Your task to perform on an android device: View the shopping cart on target. Add "razer huntsman" to the cart on target, then select checkout. Image 0: 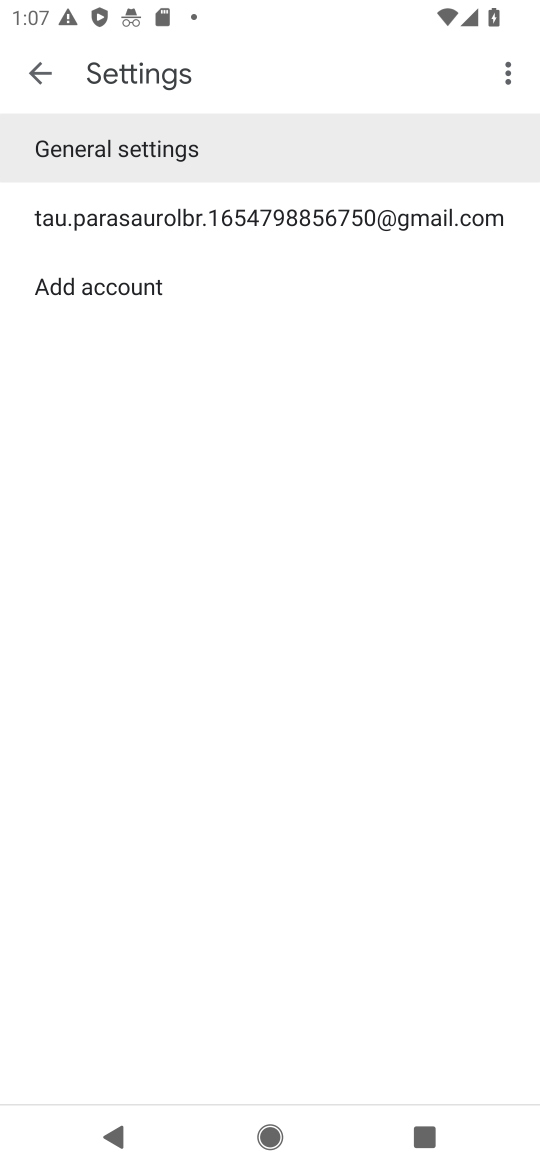
Step 0: press home button
Your task to perform on an android device: View the shopping cart on target. Add "razer huntsman" to the cart on target, then select checkout. Image 1: 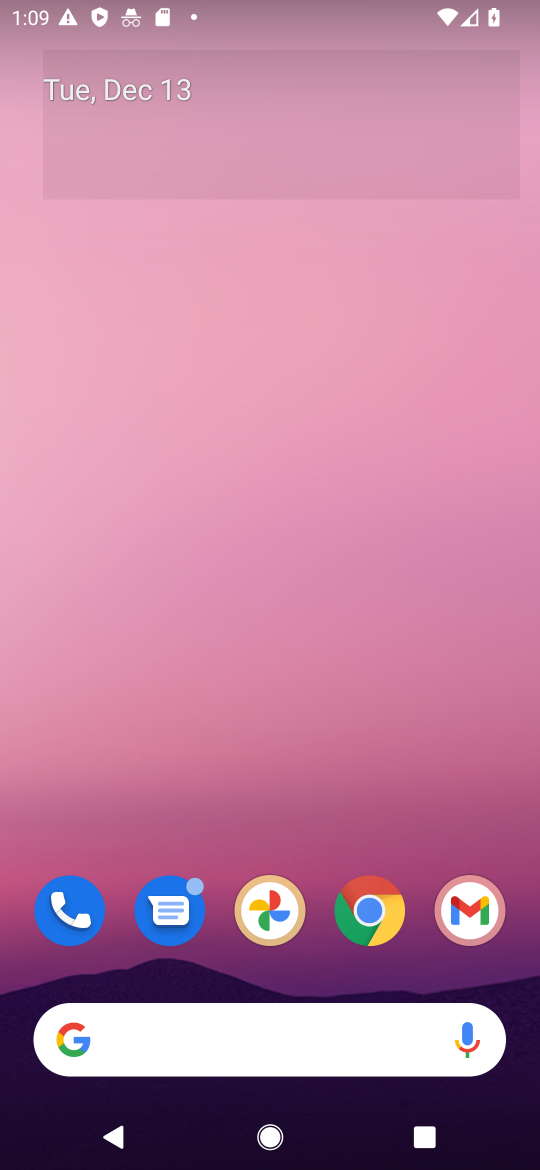
Step 1: click (372, 900)
Your task to perform on an android device: View the shopping cart on target. Add "razer huntsman" to the cart on target, then select checkout. Image 2: 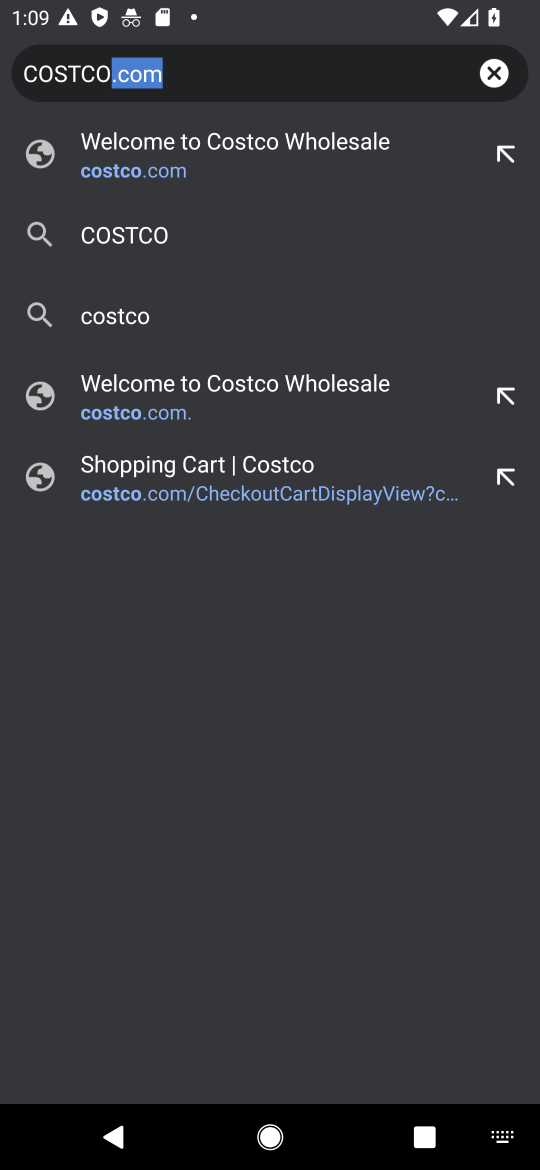
Step 2: click (492, 72)
Your task to perform on an android device: View the shopping cart on target. Add "razer huntsman" to the cart on target, then select checkout. Image 3: 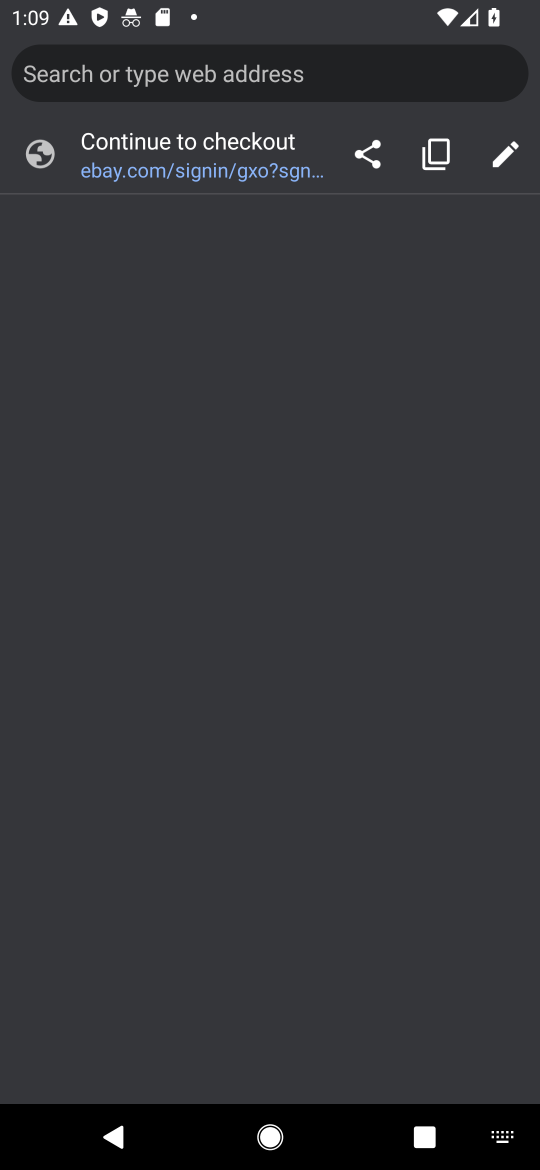
Step 3: type "TARGET"
Your task to perform on an android device: View the shopping cart on target. Add "razer huntsman" to the cart on target, then select checkout. Image 4: 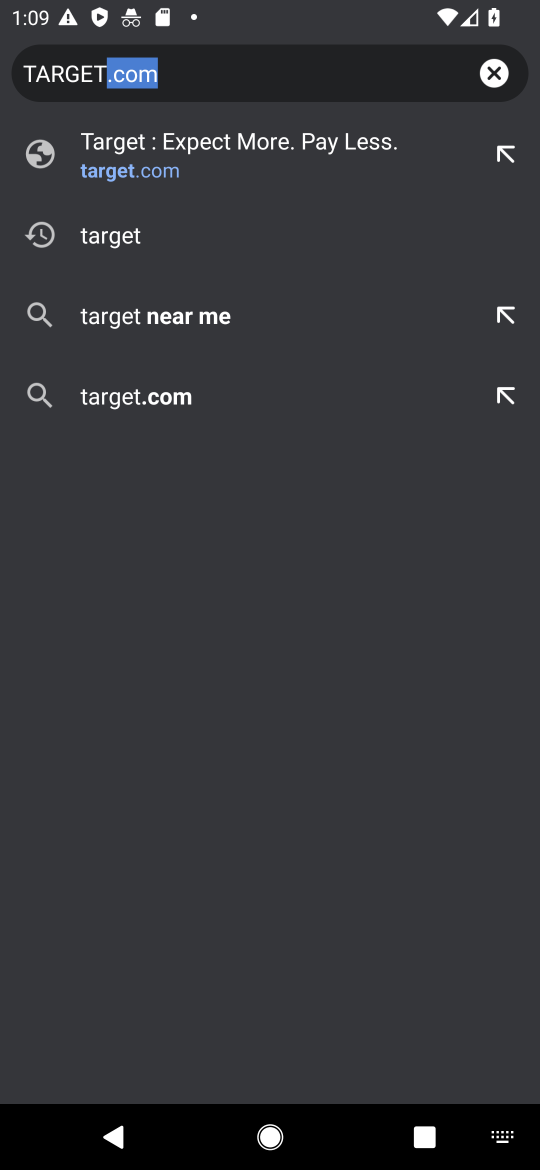
Step 4: click (167, 161)
Your task to perform on an android device: View the shopping cart on target. Add "razer huntsman" to the cart on target, then select checkout. Image 5: 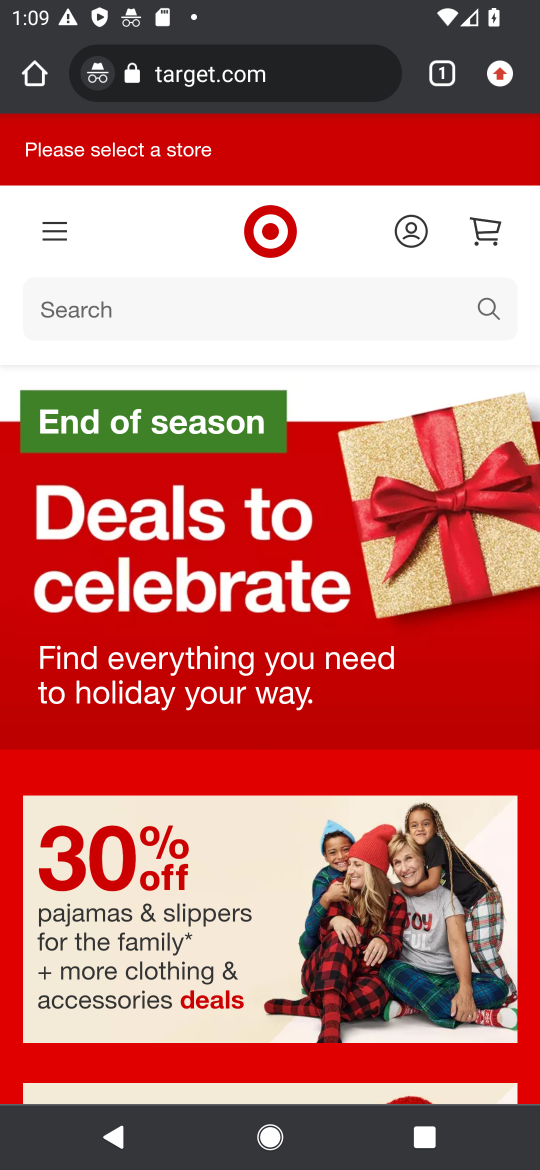
Step 5: click (301, 304)
Your task to perform on an android device: View the shopping cart on target. Add "razer huntsman" to the cart on target, then select checkout. Image 6: 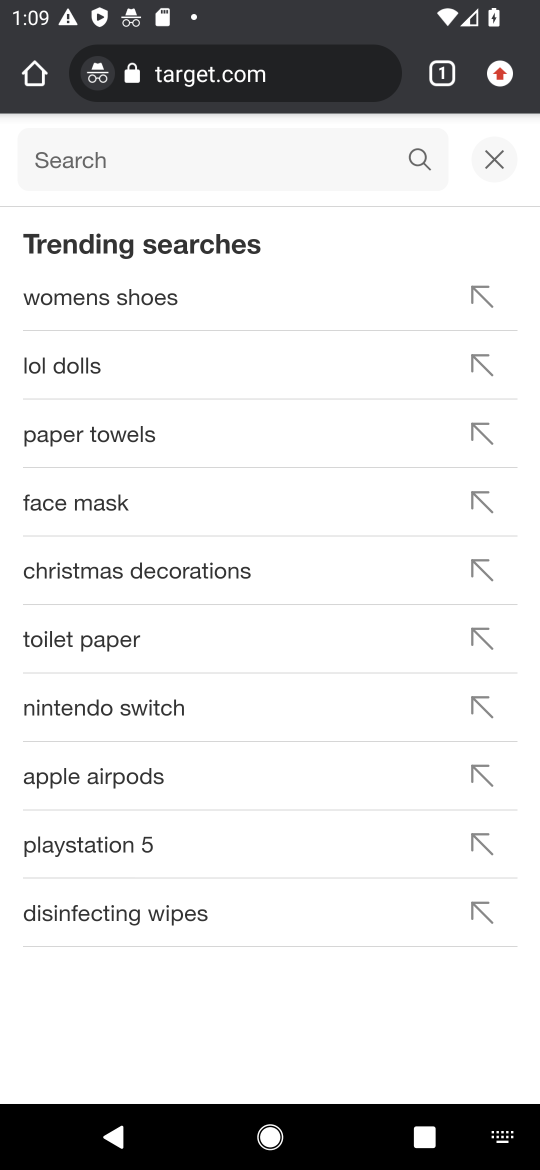
Step 6: type "razer huntsman"
Your task to perform on an android device: View the shopping cart on target. Add "razer huntsman" to the cart on target, then select checkout. Image 7: 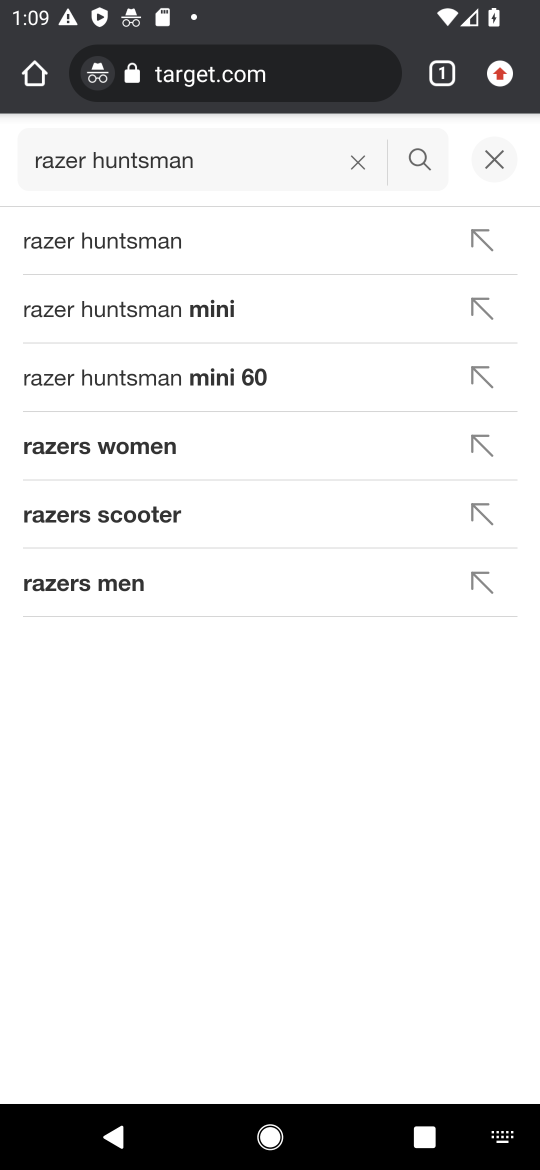
Step 7: click (140, 242)
Your task to perform on an android device: View the shopping cart on target. Add "razer huntsman" to the cart on target, then select checkout. Image 8: 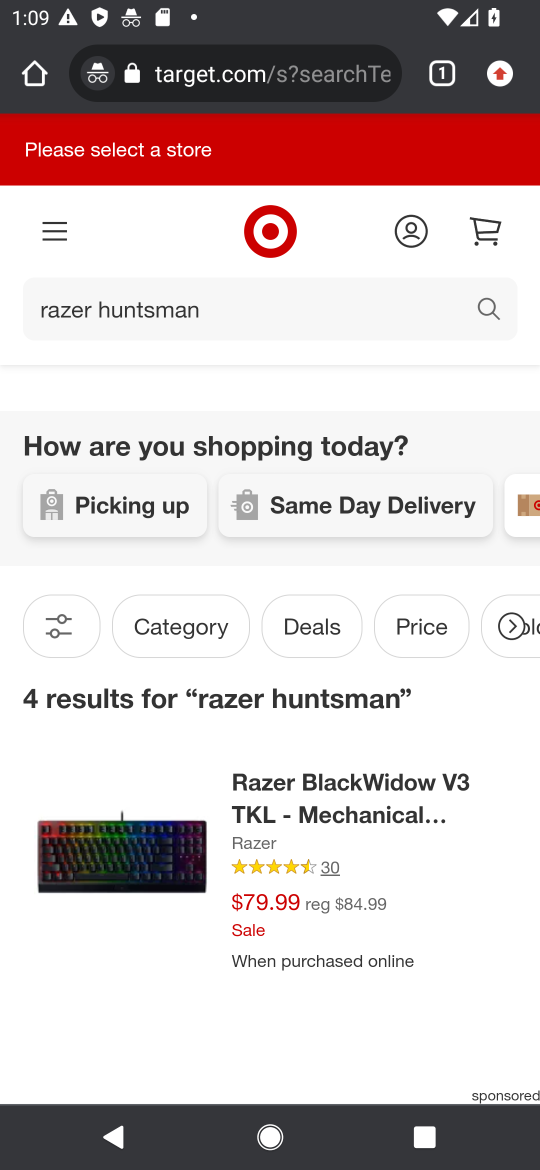
Step 8: click (425, 800)
Your task to perform on an android device: View the shopping cart on target. Add "razer huntsman" to the cart on target, then select checkout. Image 9: 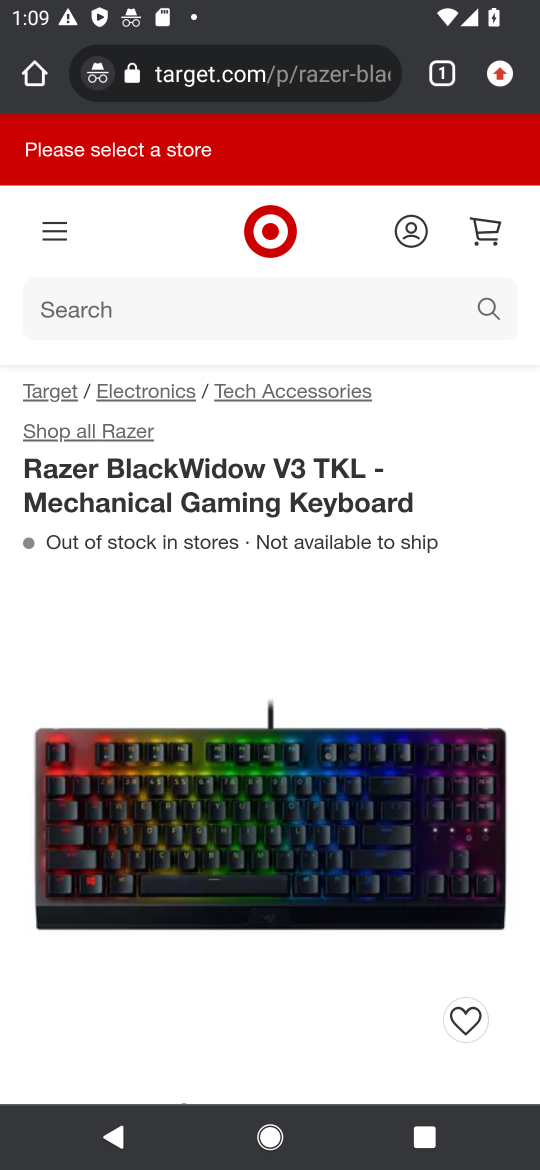
Step 9: click (410, 660)
Your task to perform on an android device: View the shopping cart on target. Add "razer huntsman" to the cart on target, then select checkout. Image 10: 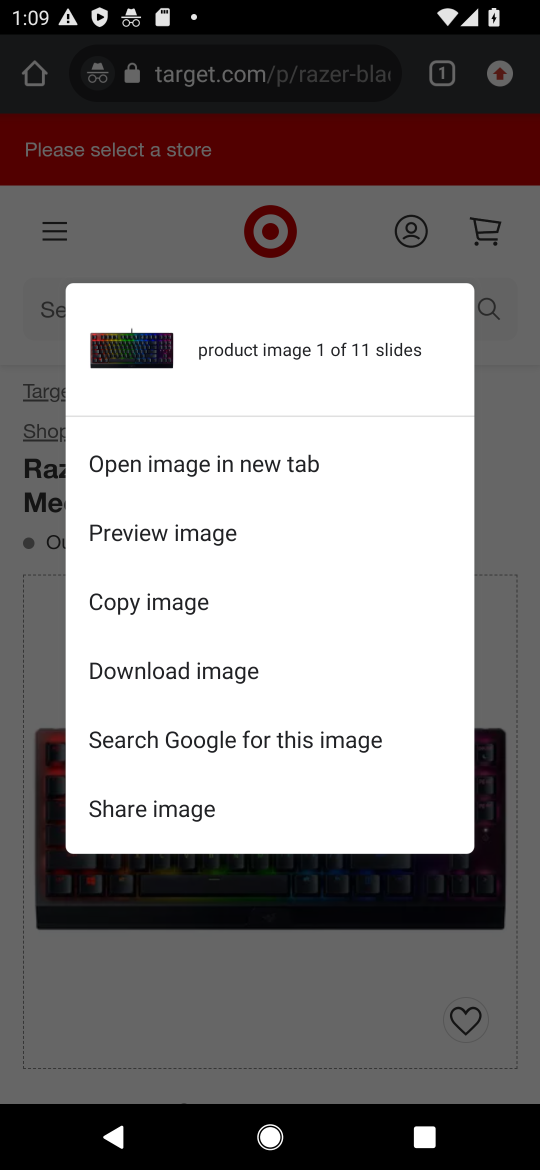
Step 10: click (410, 660)
Your task to perform on an android device: View the shopping cart on target. Add "razer huntsman" to the cart on target, then select checkout. Image 11: 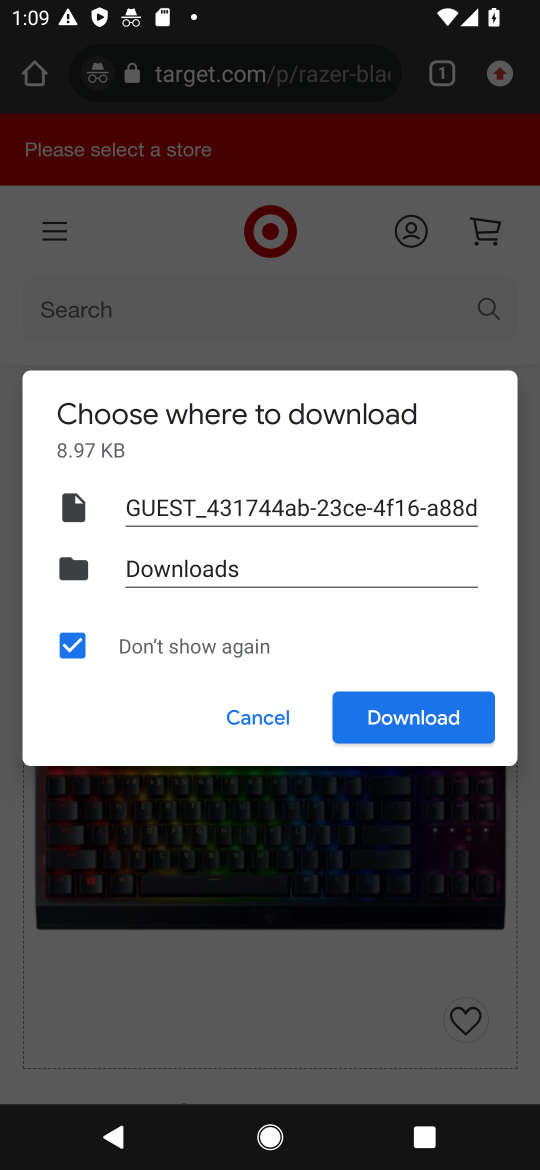
Step 11: click (265, 717)
Your task to perform on an android device: View the shopping cart on target. Add "razer huntsman" to the cart on target, then select checkout. Image 12: 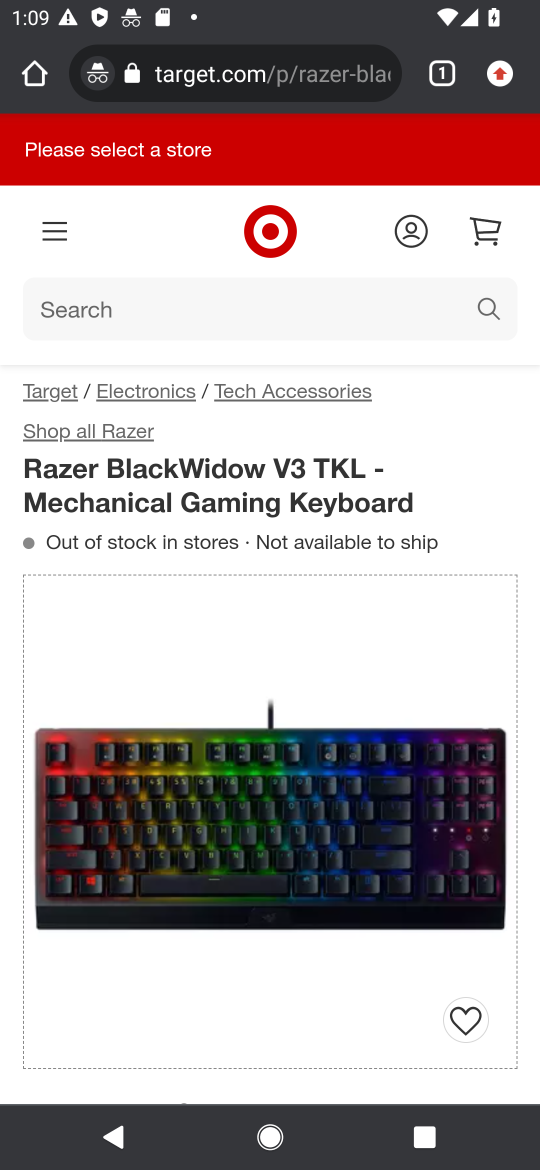
Step 12: drag from (403, 803) to (393, 229)
Your task to perform on an android device: View the shopping cart on target. Add "razer huntsman" to the cart on target, then select checkout. Image 13: 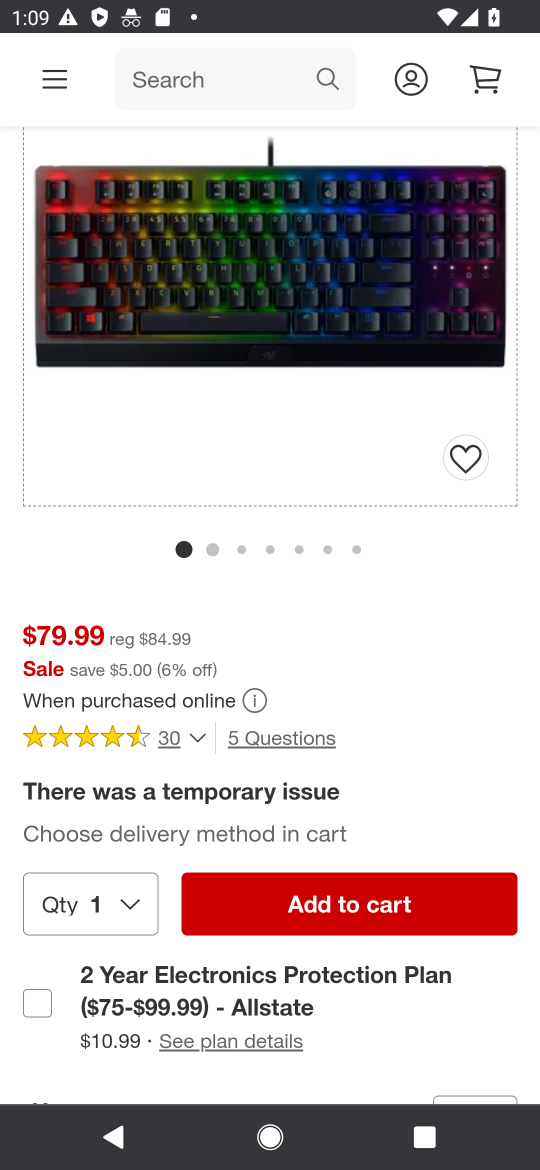
Step 13: click (362, 1084)
Your task to perform on an android device: View the shopping cart on target. Add "razer huntsman" to the cart on target, then select checkout. Image 14: 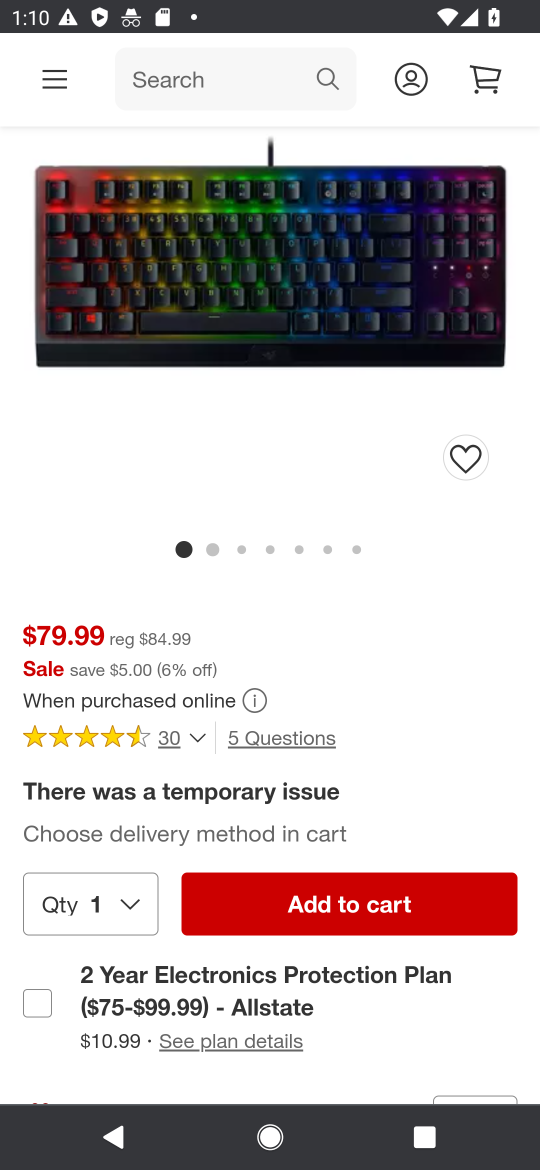
Step 14: click (359, 903)
Your task to perform on an android device: View the shopping cart on target. Add "razer huntsman" to the cart on target, then select checkout. Image 15: 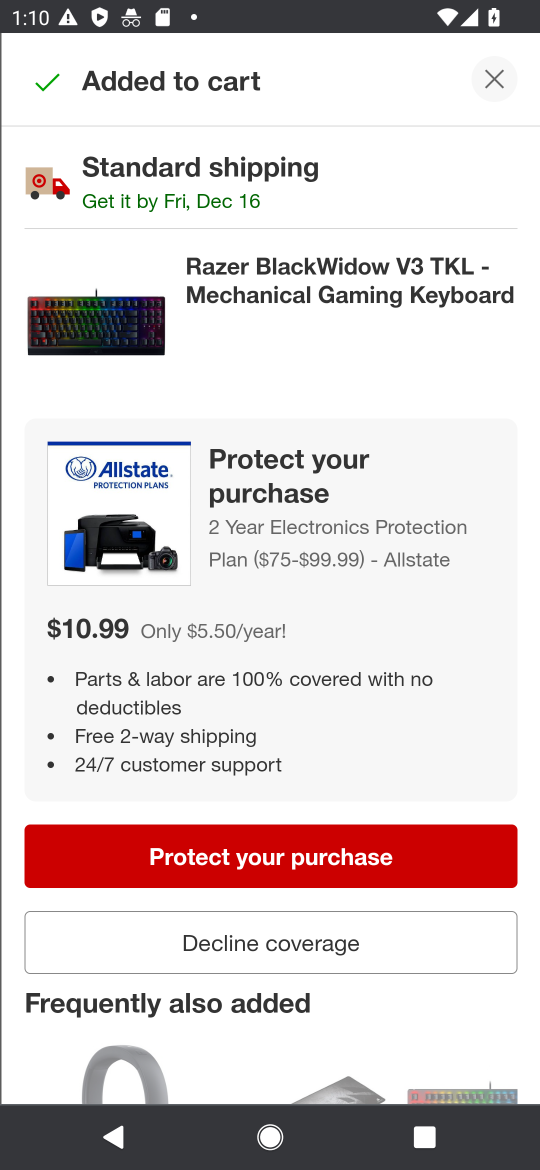
Step 15: click (302, 942)
Your task to perform on an android device: View the shopping cart on target. Add "razer huntsman" to the cart on target, then select checkout. Image 16: 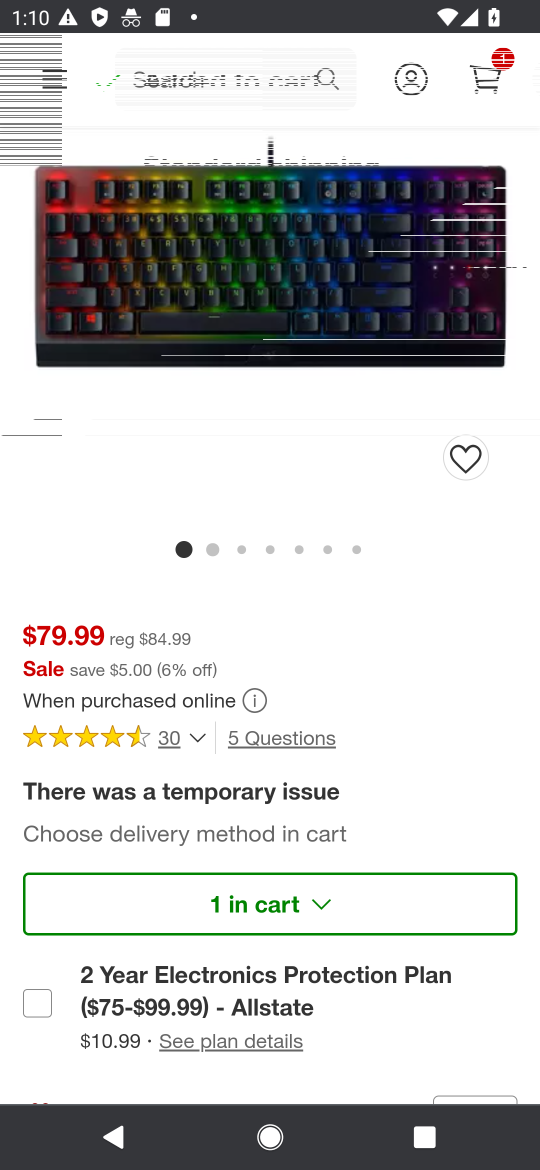
Step 16: click (489, 68)
Your task to perform on an android device: View the shopping cart on target. Add "razer huntsman" to the cart on target, then select checkout. Image 17: 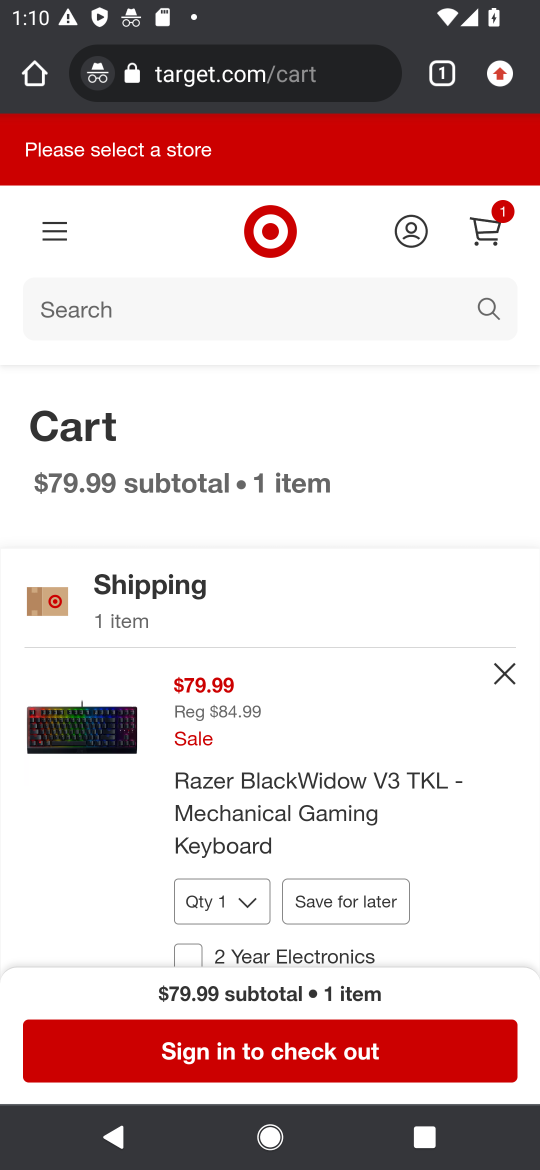
Step 17: click (259, 1045)
Your task to perform on an android device: View the shopping cart on target. Add "razer huntsman" to the cart on target, then select checkout. Image 18: 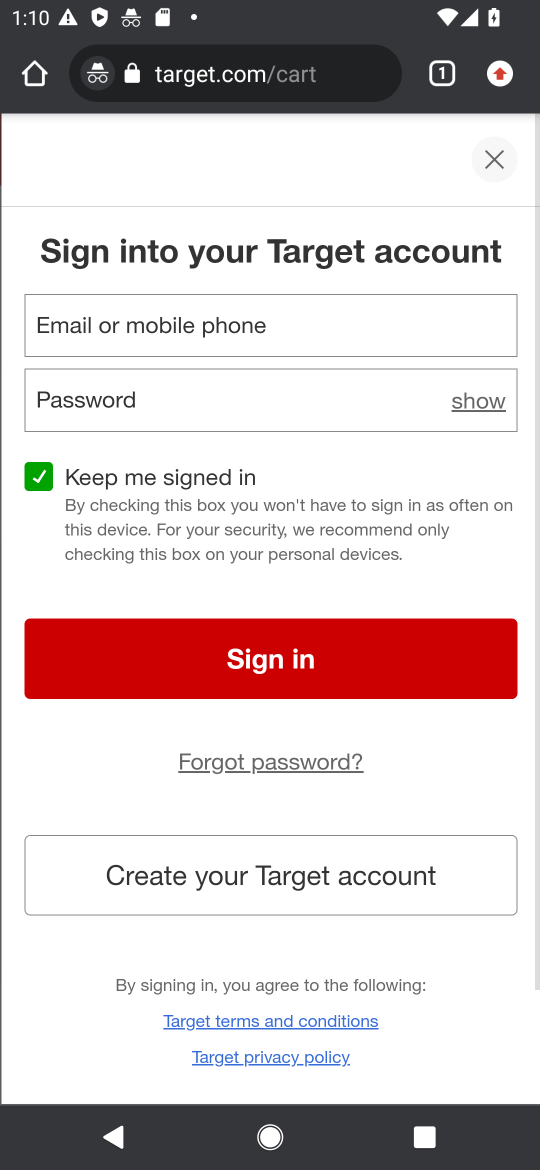
Step 18: task complete